Your task to perform on an android device: turn on improve location accuracy Image 0: 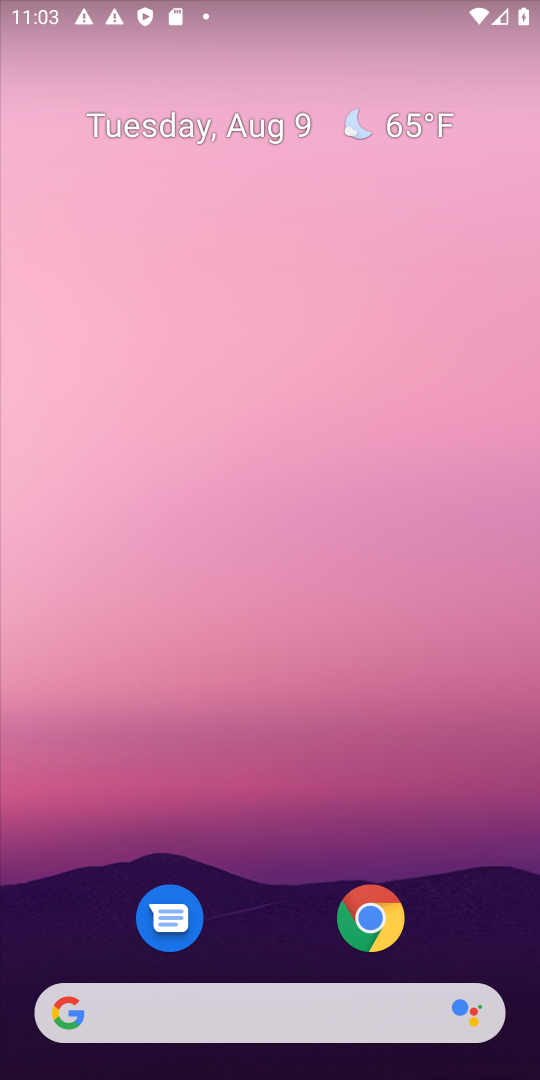
Step 0: drag from (291, 502) to (336, 219)
Your task to perform on an android device: turn on improve location accuracy Image 1: 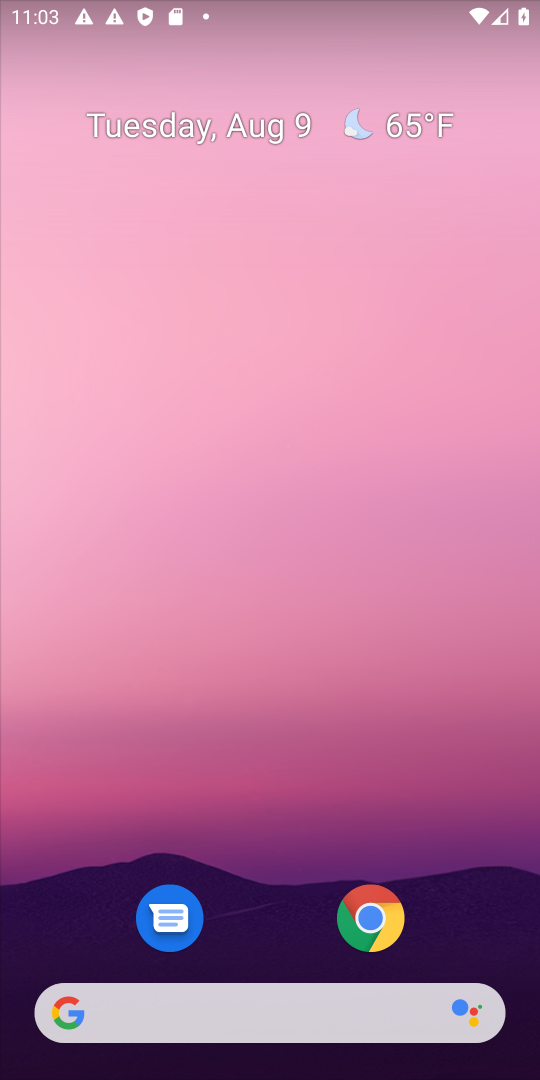
Step 1: drag from (270, 919) to (244, 0)
Your task to perform on an android device: turn on improve location accuracy Image 2: 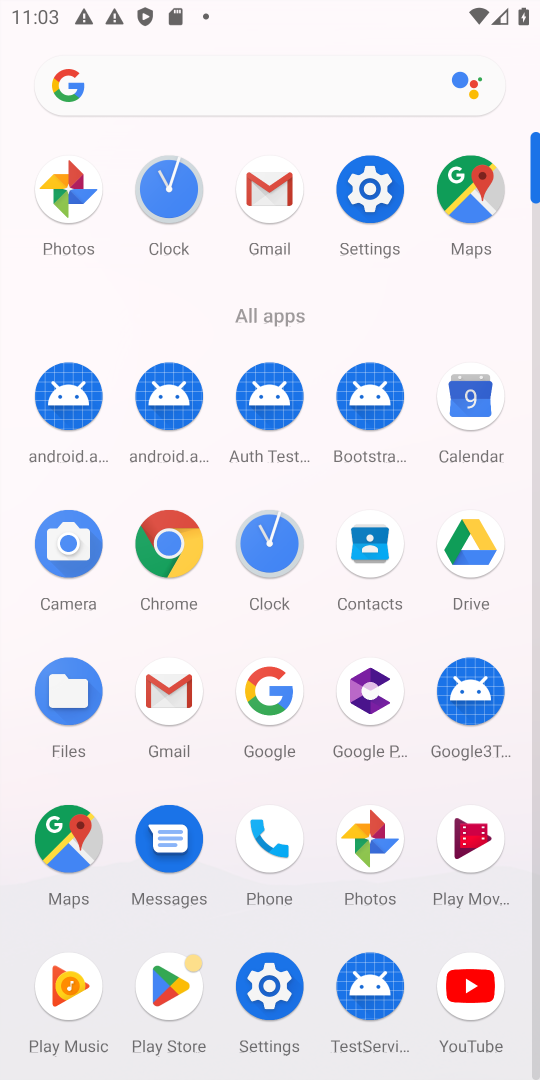
Step 2: click (269, 984)
Your task to perform on an android device: turn on improve location accuracy Image 3: 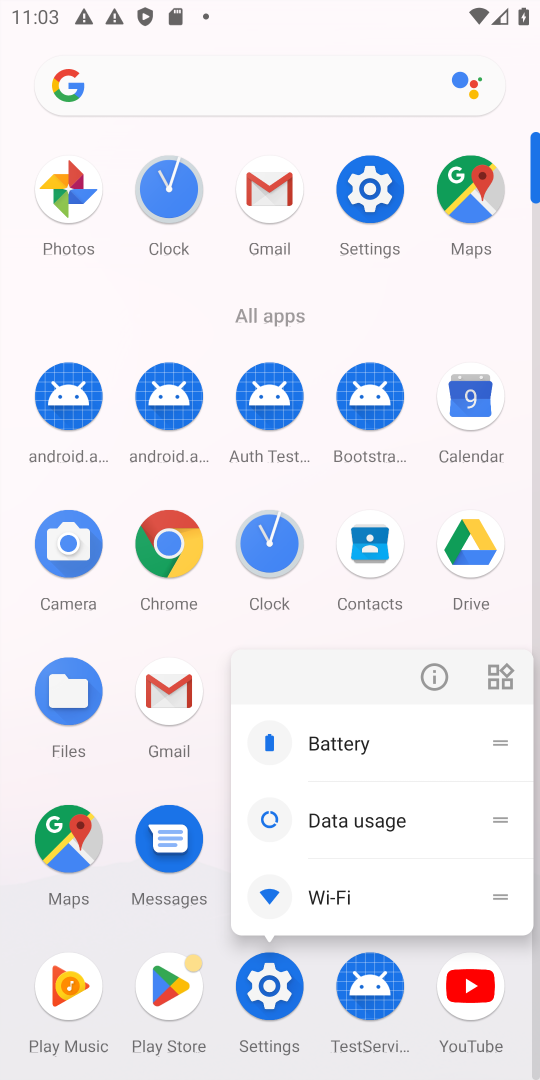
Step 3: click (269, 984)
Your task to perform on an android device: turn on improve location accuracy Image 4: 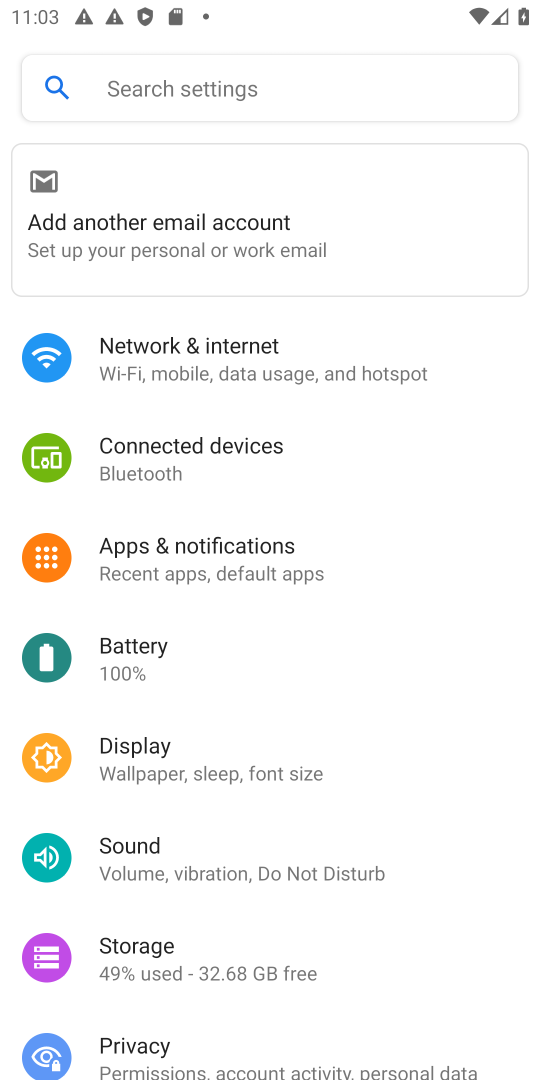
Step 4: drag from (250, 890) to (278, 454)
Your task to perform on an android device: turn on improve location accuracy Image 5: 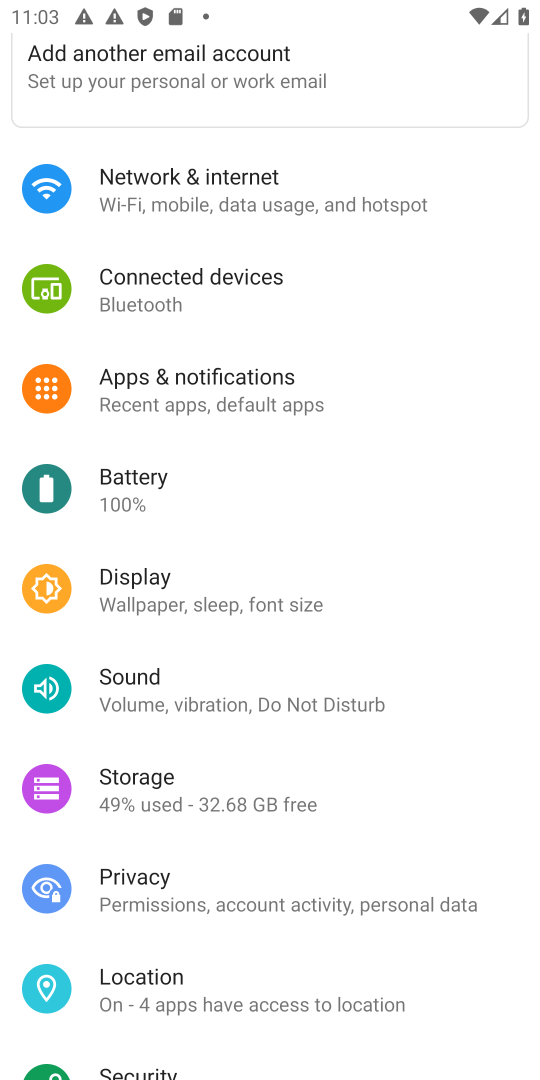
Step 5: click (147, 994)
Your task to perform on an android device: turn on improve location accuracy Image 6: 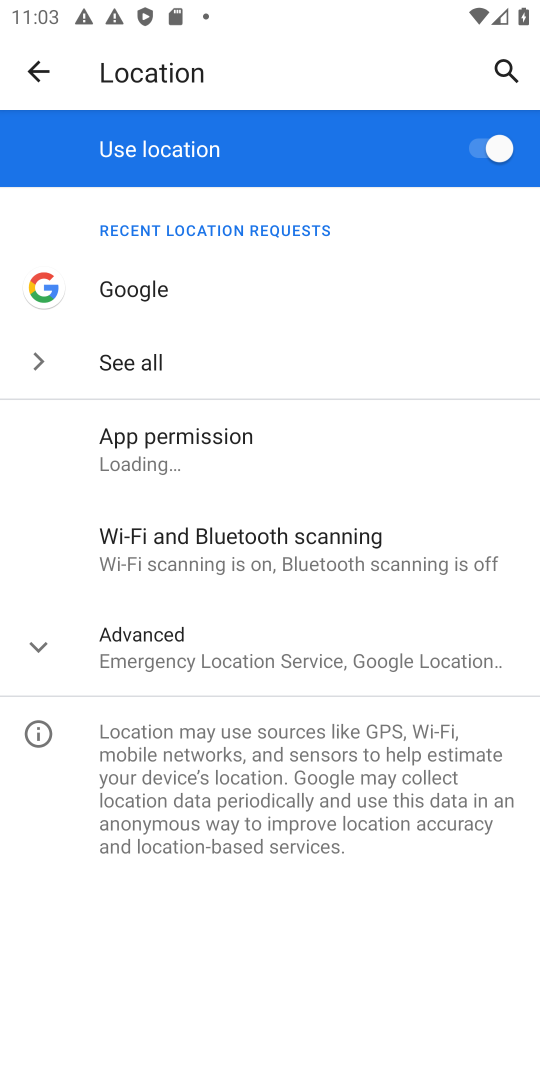
Step 6: click (164, 628)
Your task to perform on an android device: turn on improve location accuracy Image 7: 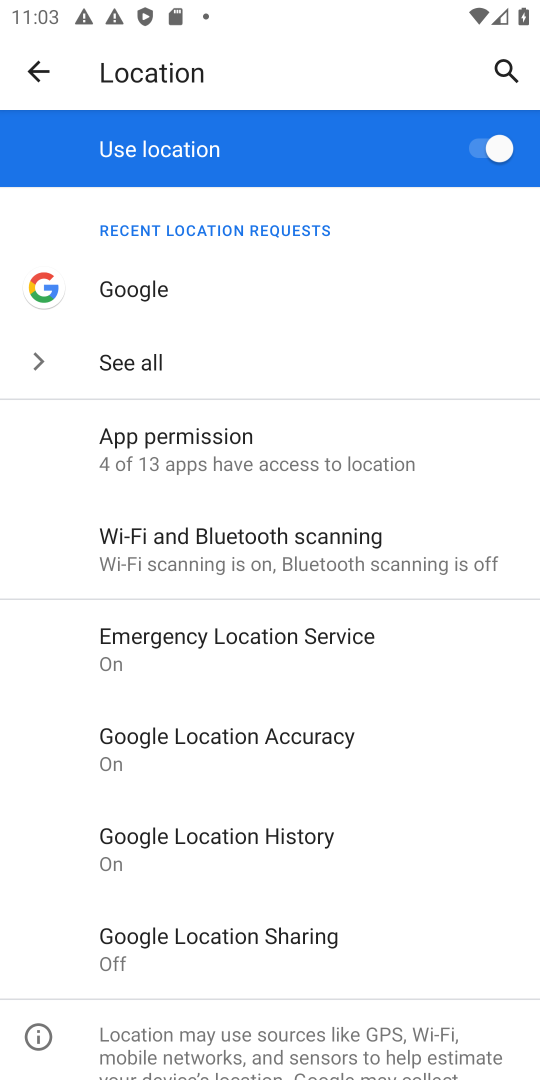
Step 7: click (272, 742)
Your task to perform on an android device: turn on improve location accuracy Image 8: 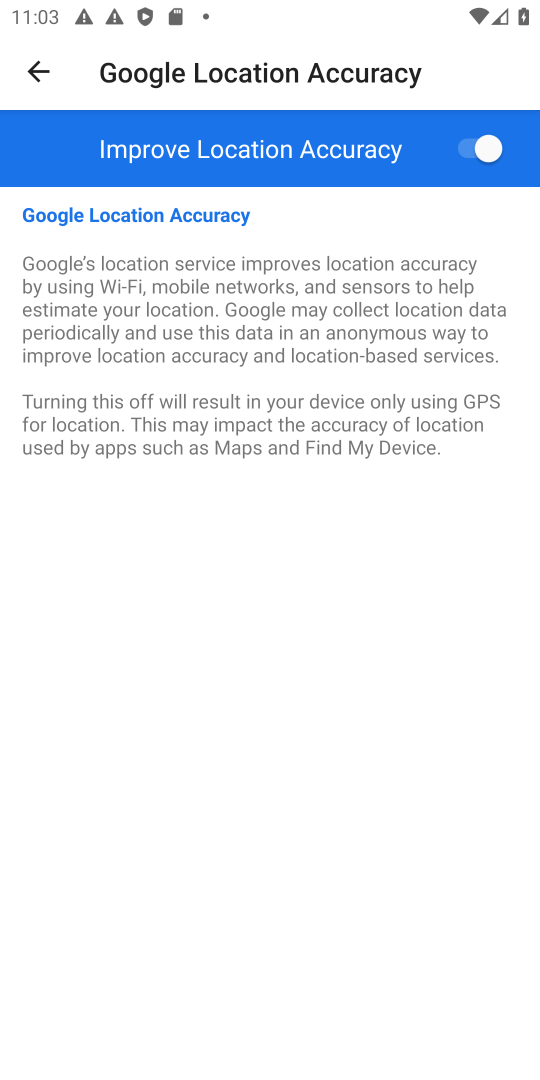
Step 8: task complete